Your task to perform on an android device: turn on javascript in the chrome app Image 0: 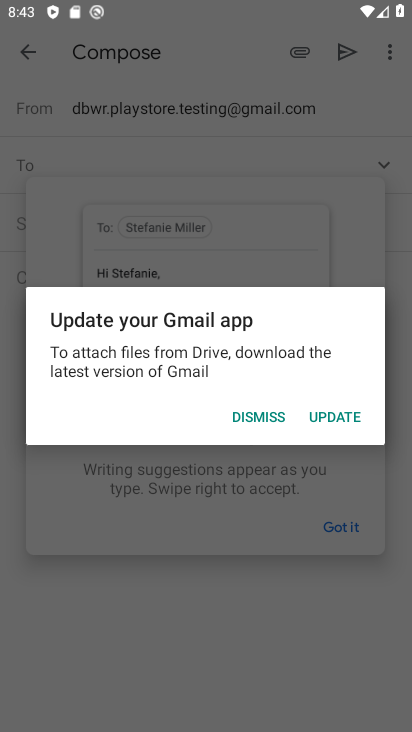
Step 0: press home button
Your task to perform on an android device: turn on javascript in the chrome app Image 1: 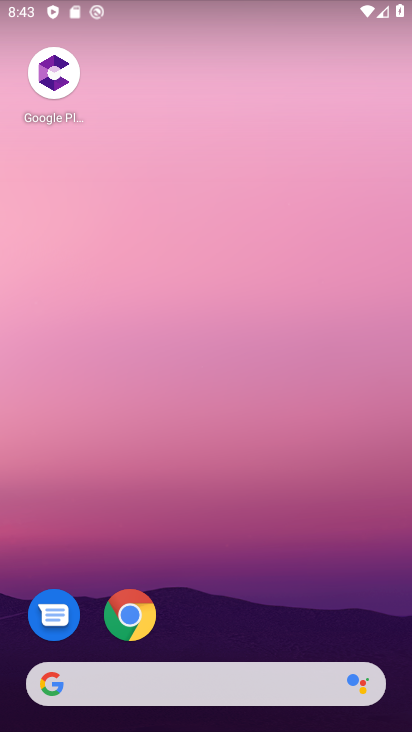
Step 1: click (140, 612)
Your task to perform on an android device: turn on javascript in the chrome app Image 2: 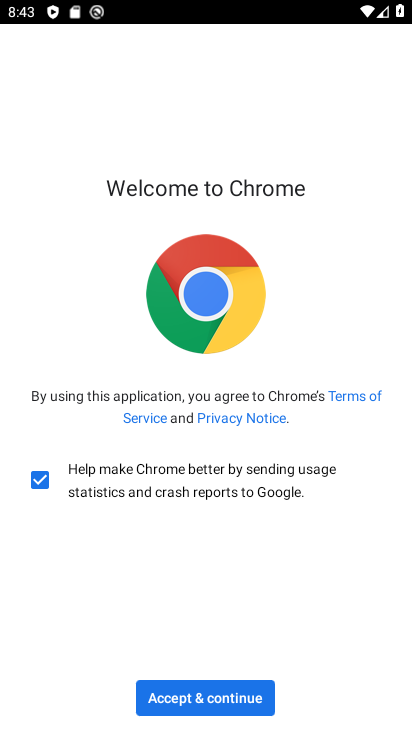
Step 2: click (172, 703)
Your task to perform on an android device: turn on javascript in the chrome app Image 3: 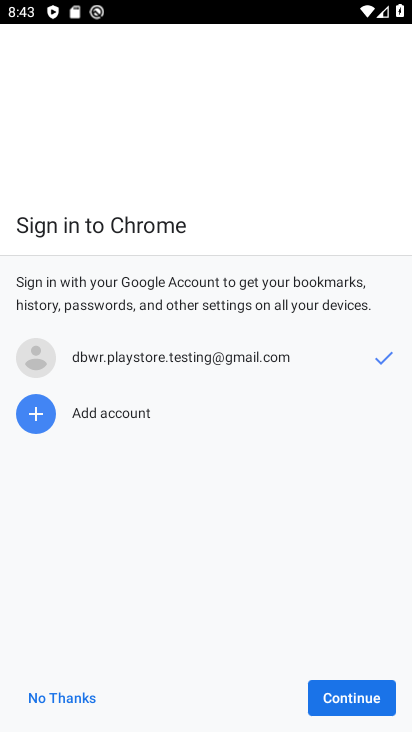
Step 3: click (371, 685)
Your task to perform on an android device: turn on javascript in the chrome app Image 4: 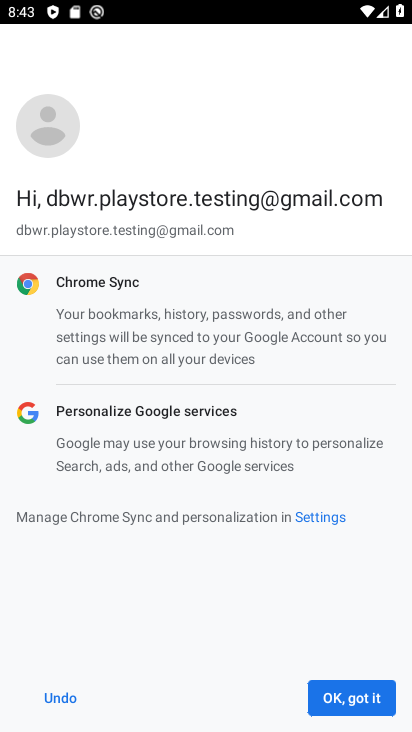
Step 4: click (363, 688)
Your task to perform on an android device: turn on javascript in the chrome app Image 5: 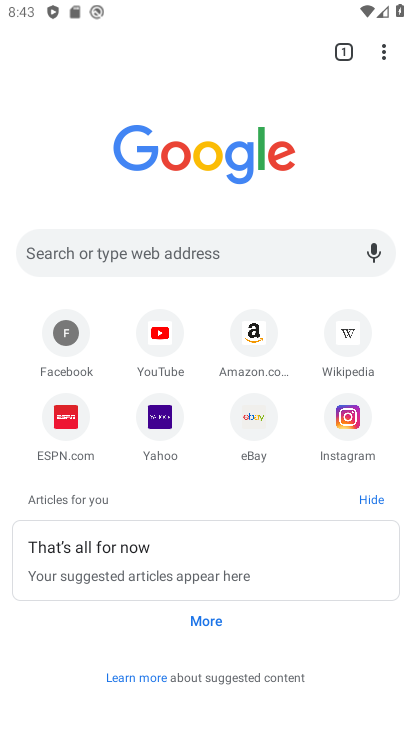
Step 5: click (386, 49)
Your task to perform on an android device: turn on javascript in the chrome app Image 6: 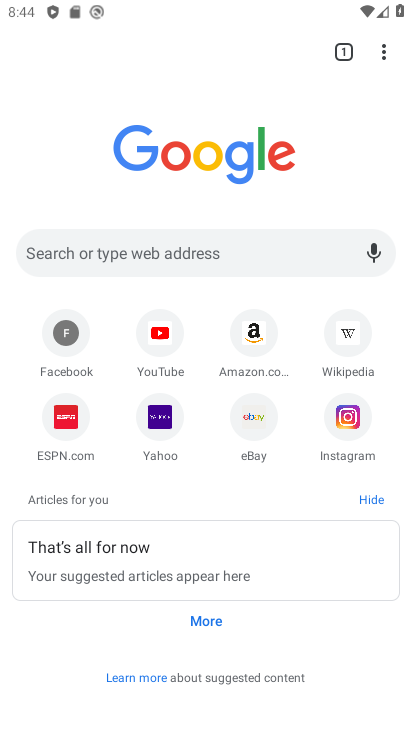
Step 6: click (381, 51)
Your task to perform on an android device: turn on javascript in the chrome app Image 7: 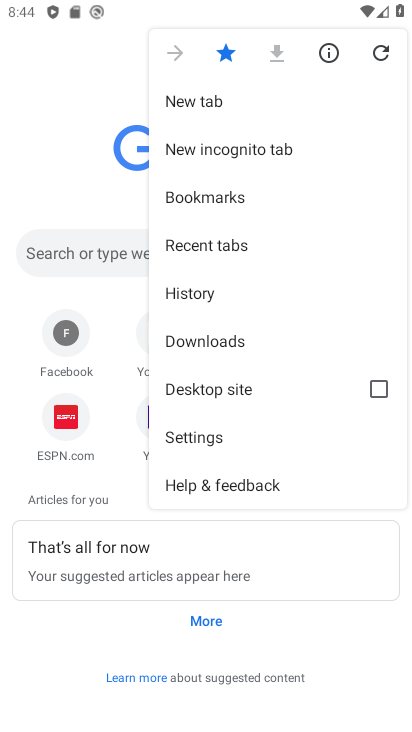
Step 7: click (226, 440)
Your task to perform on an android device: turn on javascript in the chrome app Image 8: 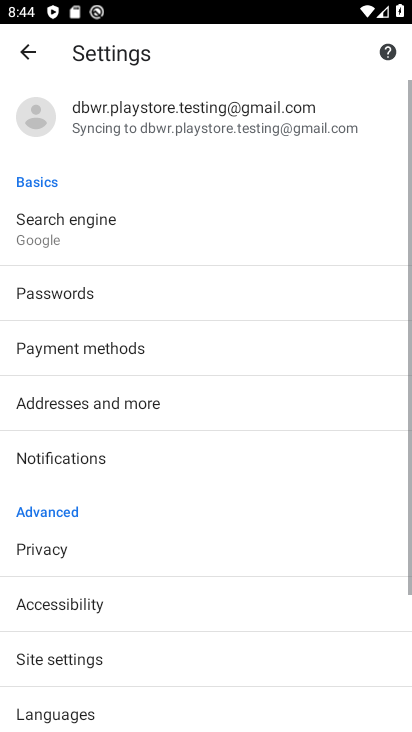
Step 8: drag from (185, 375) to (187, 180)
Your task to perform on an android device: turn on javascript in the chrome app Image 9: 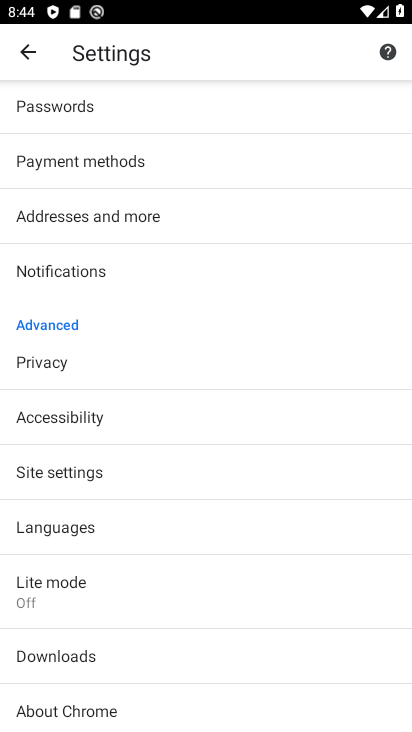
Step 9: click (113, 477)
Your task to perform on an android device: turn on javascript in the chrome app Image 10: 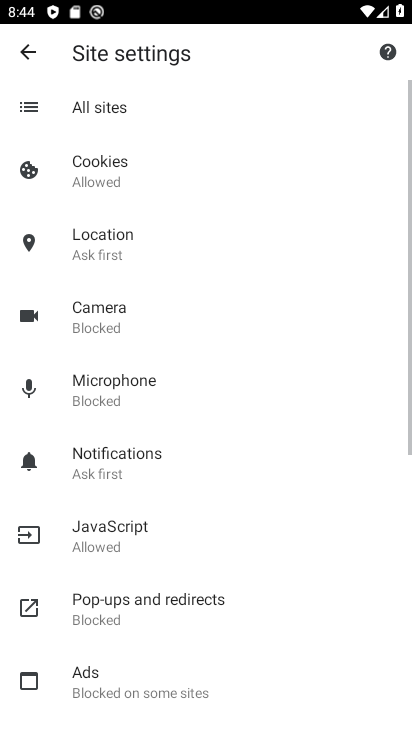
Step 10: click (168, 511)
Your task to perform on an android device: turn on javascript in the chrome app Image 11: 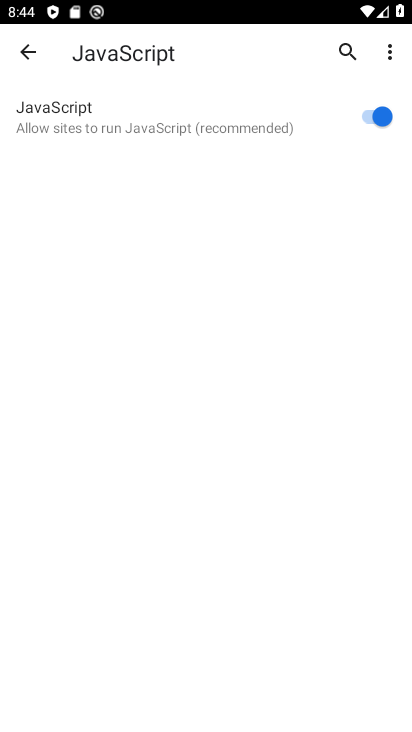
Step 11: task complete